Your task to perform on an android device: open app "Fetch Rewards" (install if not already installed), go to login, and select forgot password Image 0: 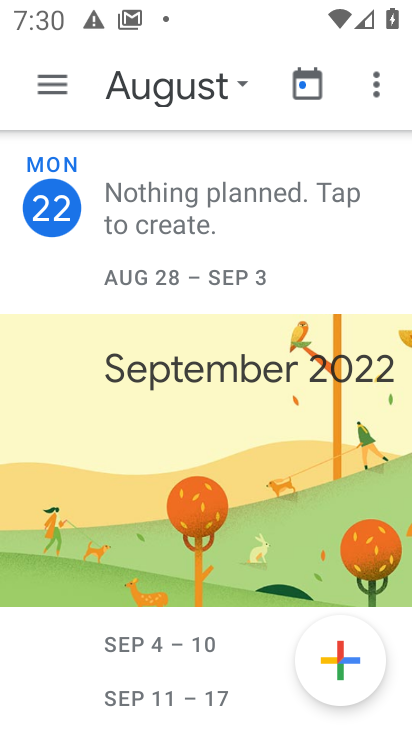
Step 0: press home button
Your task to perform on an android device: open app "Fetch Rewards" (install if not already installed), go to login, and select forgot password Image 1: 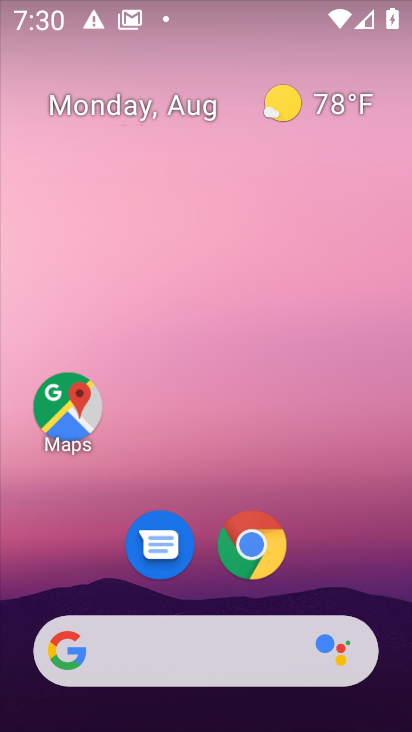
Step 1: drag from (349, 564) to (364, 132)
Your task to perform on an android device: open app "Fetch Rewards" (install if not already installed), go to login, and select forgot password Image 2: 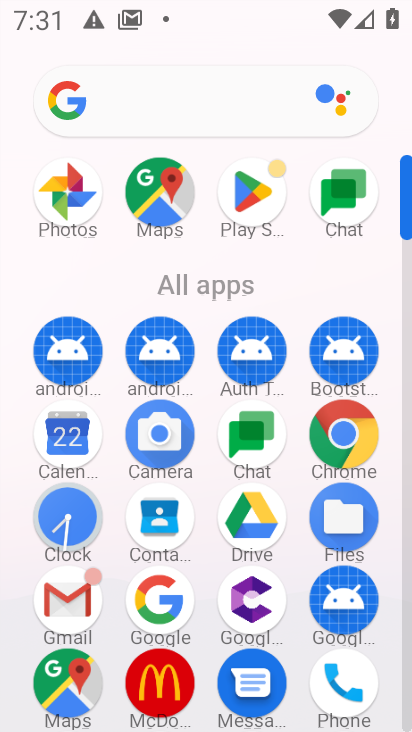
Step 2: click (261, 190)
Your task to perform on an android device: open app "Fetch Rewards" (install if not already installed), go to login, and select forgot password Image 3: 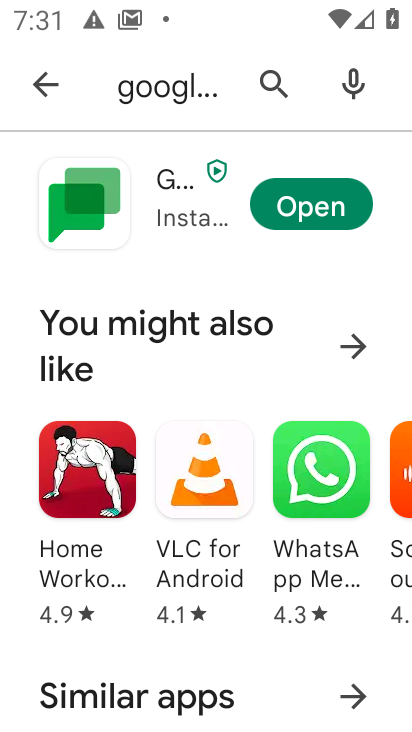
Step 3: press back button
Your task to perform on an android device: open app "Fetch Rewards" (install if not already installed), go to login, and select forgot password Image 4: 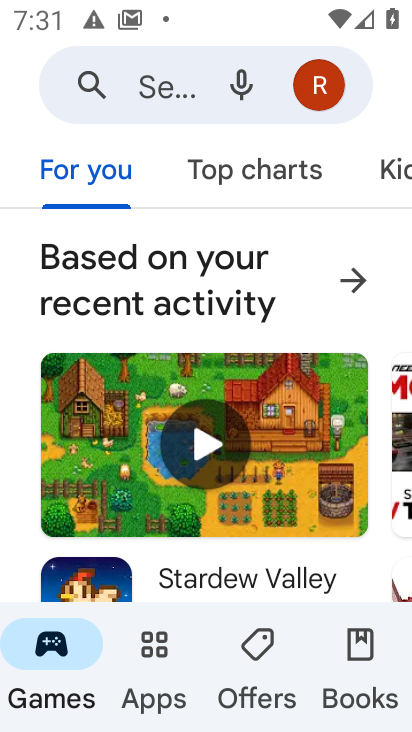
Step 4: click (167, 93)
Your task to perform on an android device: open app "Fetch Rewards" (install if not already installed), go to login, and select forgot password Image 5: 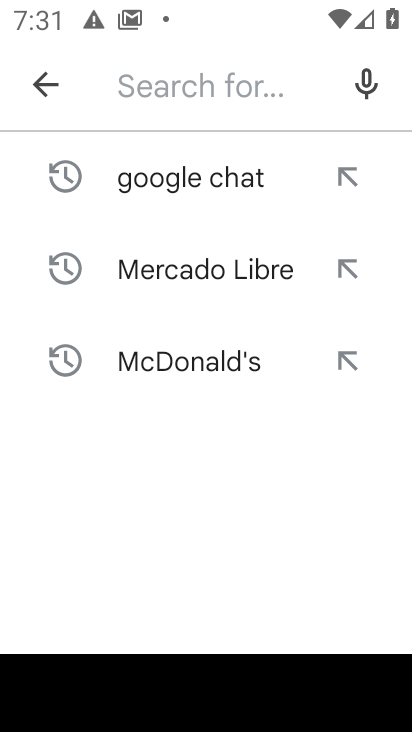
Step 5: type "Fetch Rewards"
Your task to perform on an android device: open app "Fetch Rewards" (install if not already installed), go to login, and select forgot password Image 6: 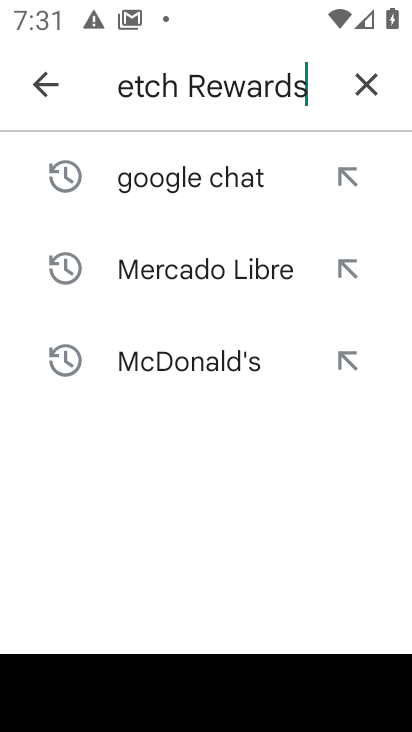
Step 6: press enter
Your task to perform on an android device: open app "Fetch Rewards" (install if not already installed), go to login, and select forgot password Image 7: 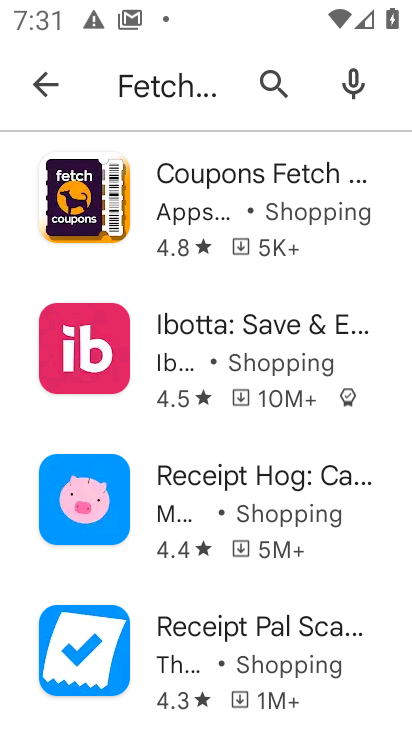
Step 7: task complete